Your task to perform on an android device: Open Chrome and go to the settings page Image 0: 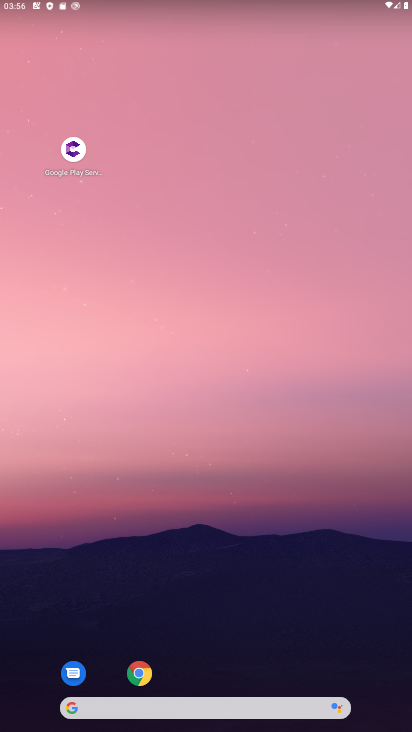
Step 0: drag from (295, 611) to (169, 49)
Your task to perform on an android device: Open Chrome and go to the settings page Image 1: 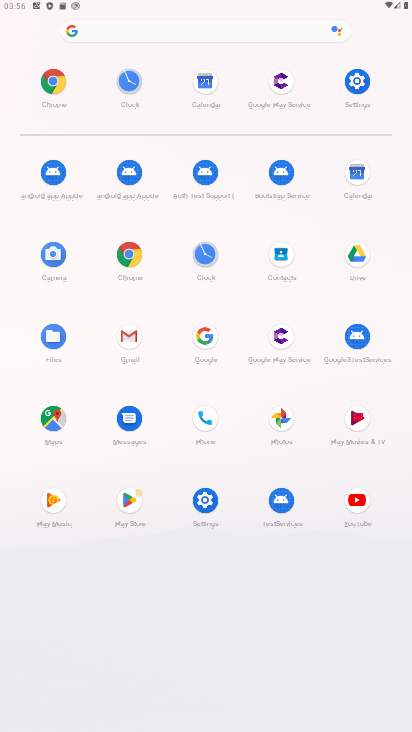
Step 1: click (52, 81)
Your task to perform on an android device: Open Chrome and go to the settings page Image 2: 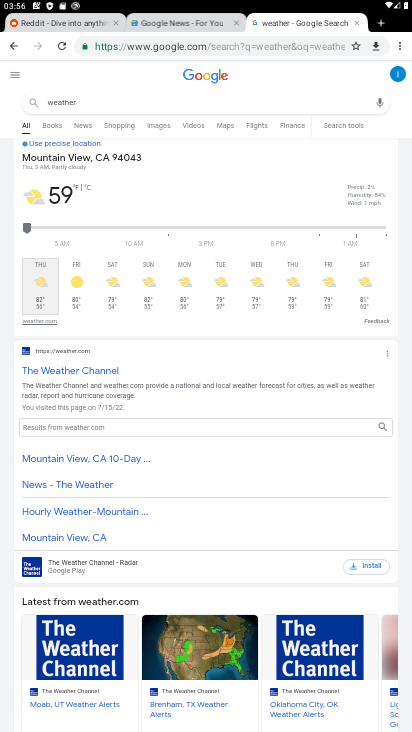
Step 2: task complete